Your task to perform on an android device: turn smart compose on in the gmail app Image 0: 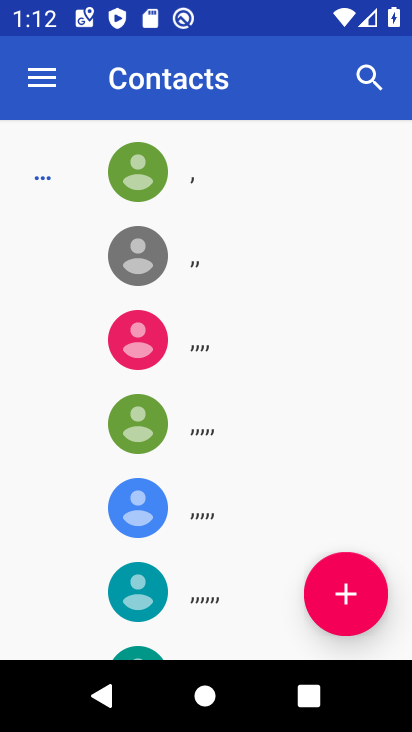
Step 0: press home button
Your task to perform on an android device: turn smart compose on in the gmail app Image 1: 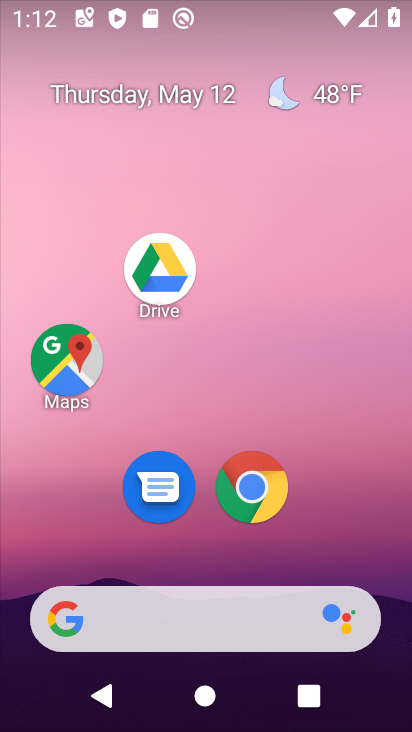
Step 1: drag from (215, 571) to (177, 44)
Your task to perform on an android device: turn smart compose on in the gmail app Image 2: 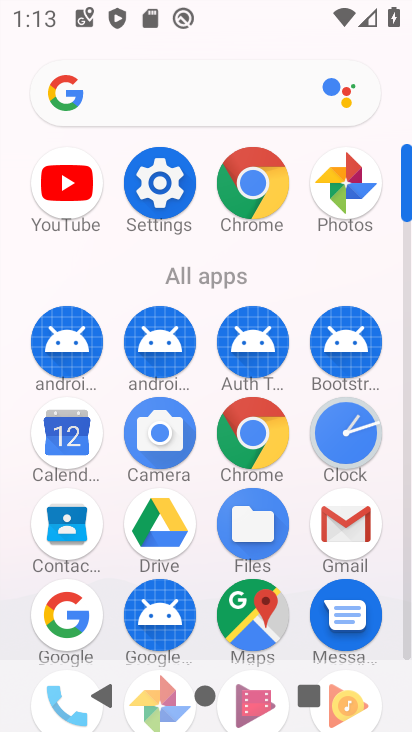
Step 2: click (341, 521)
Your task to perform on an android device: turn smart compose on in the gmail app Image 3: 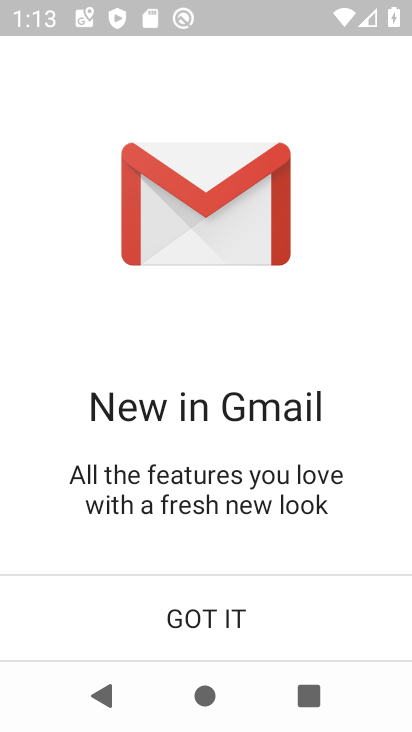
Step 3: click (231, 614)
Your task to perform on an android device: turn smart compose on in the gmail app Image 4: 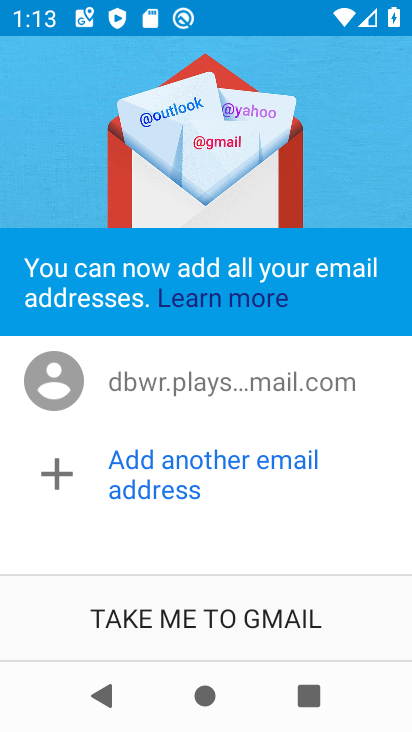
Step 4: click (252, 636)
Your task to perform on an android device: turn smart compose on in the gmail app Image 5: 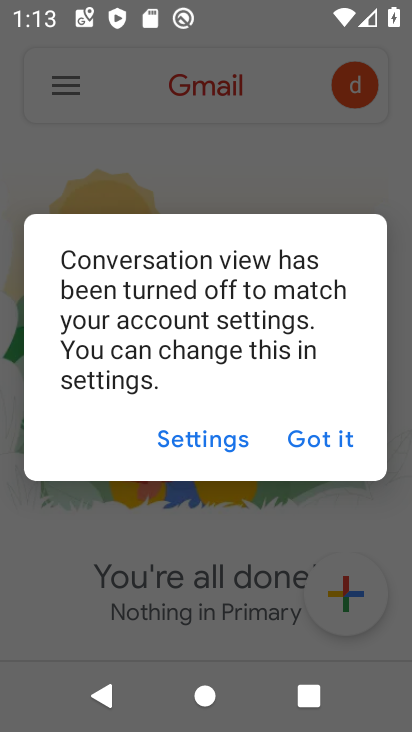
Step 5: click (313, 442)
Your task to perform on an android device: turn smart compose on in the gmail app Image 6: 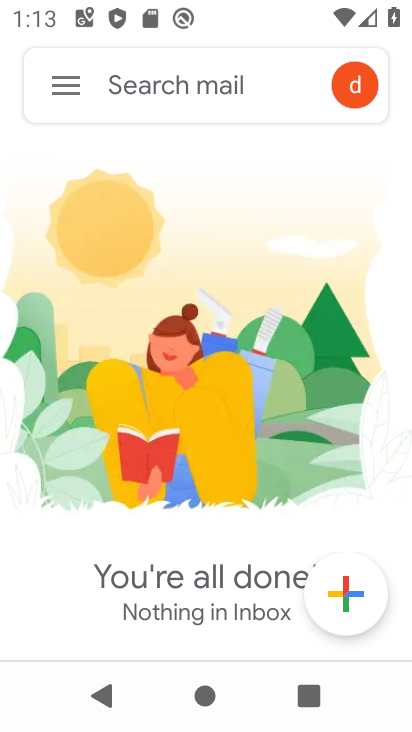
Step 6: click (59, 95)
Your task to perform on an android device: turn smart compose on in the gmail app Image 7: 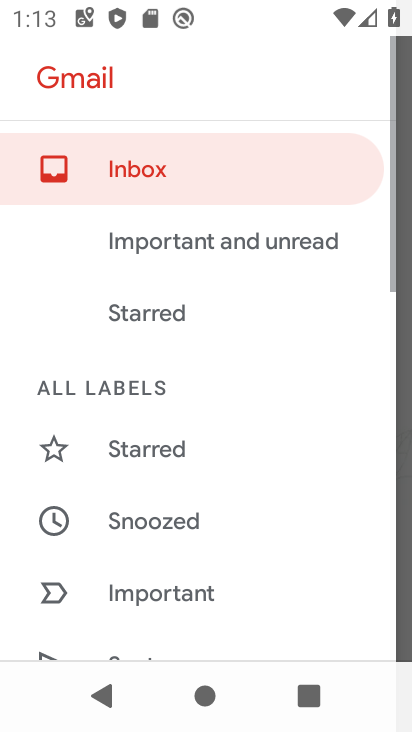
Step 7: drag from (142, 486) to (84, 41)
Your task to perform on an android device: turn smart compose on in the gmail app Image 8: 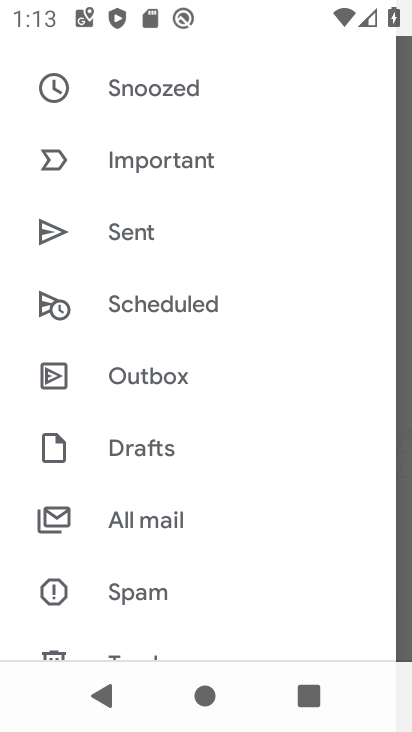
Step 8: drag from (187, 461) to (133, 5)
Your task to perform on an android device: turn smart compose on in the gmail app Image 9: 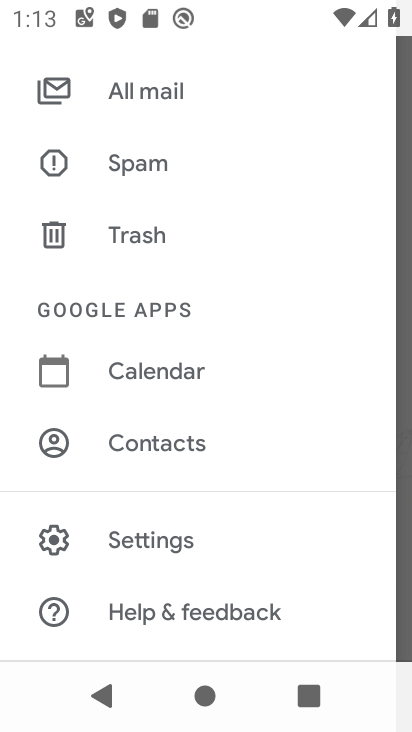
Step 9: click (137, 518)
Your task to perform on an android device: turn smart compose on in the gmail app Image 10: 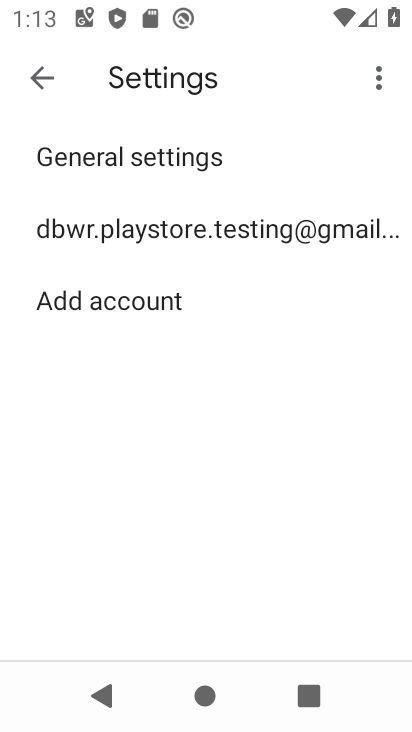
Step 10: click (109, 208)
Your task to perform on an android device: turn smart compose on in the gmail app Image 11: 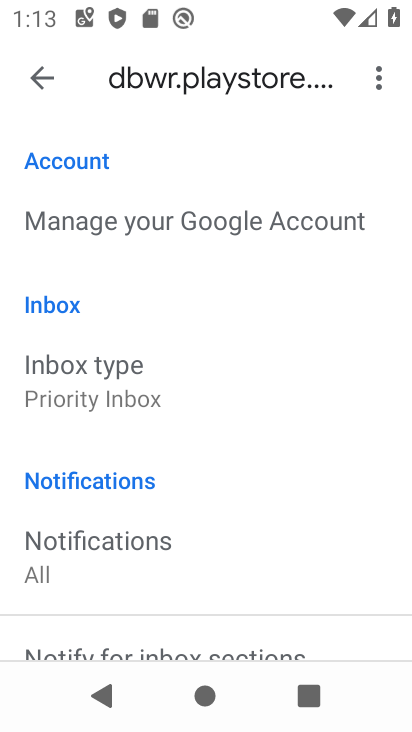
Step 11: task complete